Your task to perform on an android device: find photos in the google photos app Image 0: 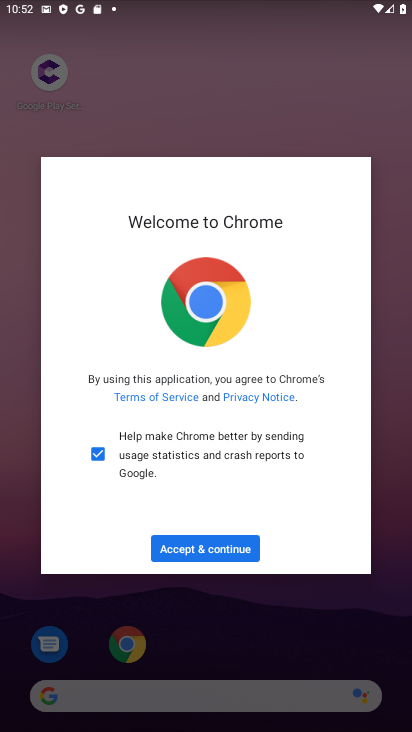
Step 0: press home button
Your task to perform on an android device: find photos in the google photos app Image 1: 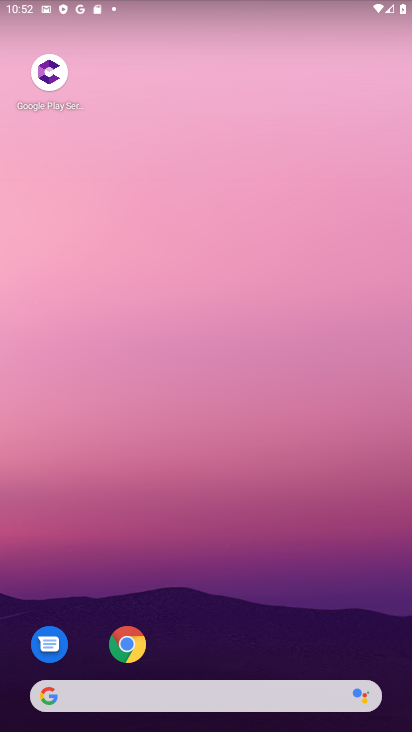
Step 1: drag from (198, 724) to (197, 78)
Your task to perform on an android device: find photos in the google photos app Image 2: 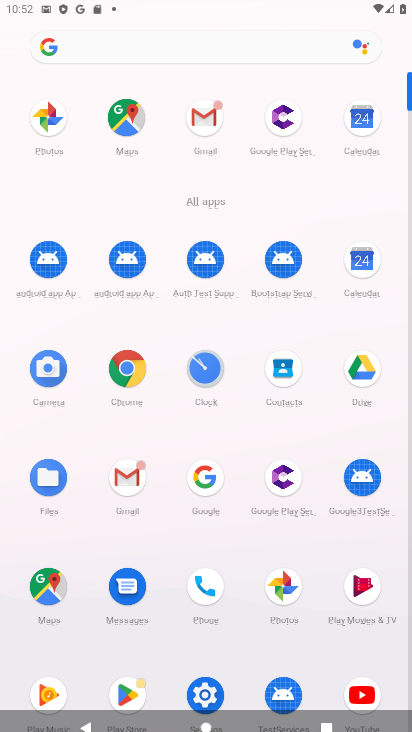
Step 2: click (278, 581)
Your task to perform on an android device: find photos in the google photos app Image 3: 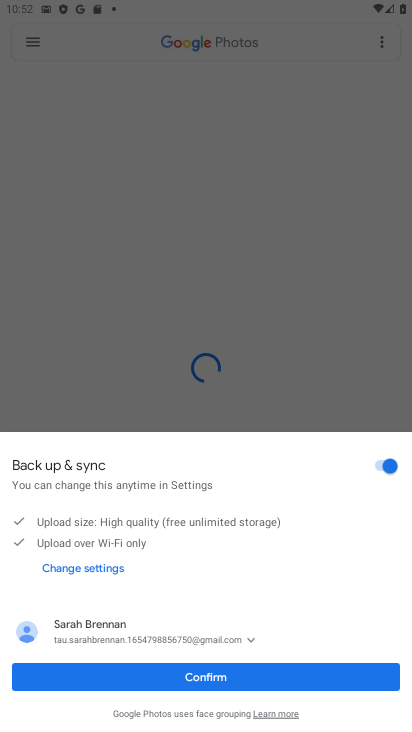
Step 3: click (224, 682)
Your task to perform on an android device: find photos in the google photos app Image 4: 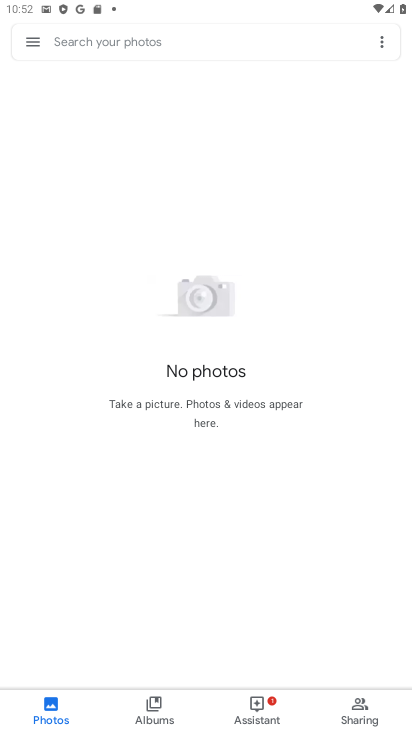
Step 4: task complete